Your task to perform on an android device: turn off sleep mode Image 0: 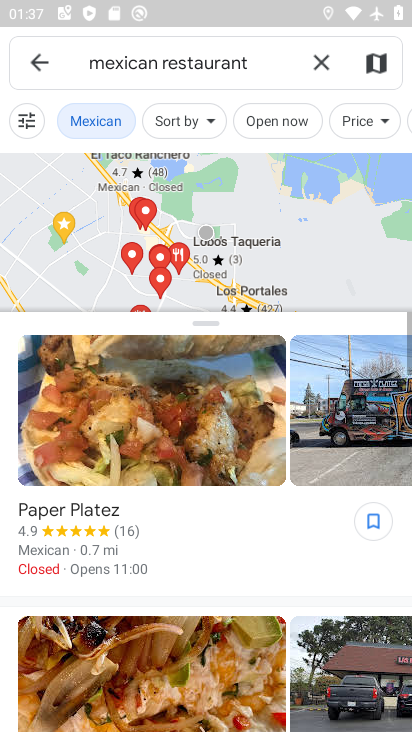
Step 0: drag from (201, 641) to (182, 508)
Your task to perform on an android device: turn off sleep mode Image 1: 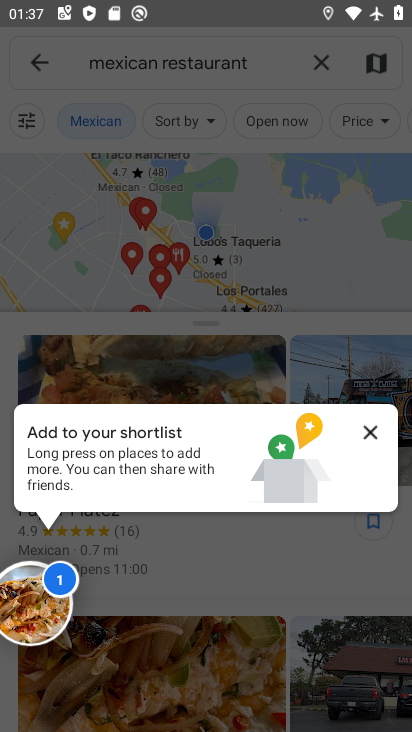
Step 1: press home button
Your task to perform on an android device: turn off sleep mode Image 2: 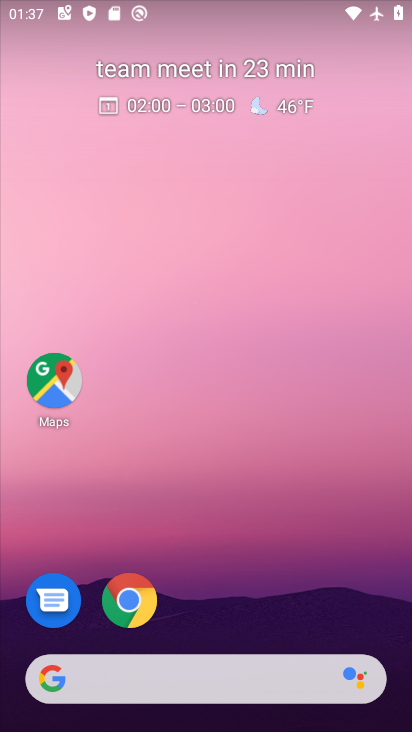
Step 2: drag from (208, 641) to (148, 27)
Your task to perform on an android device: turn off sleep mode Image 3: 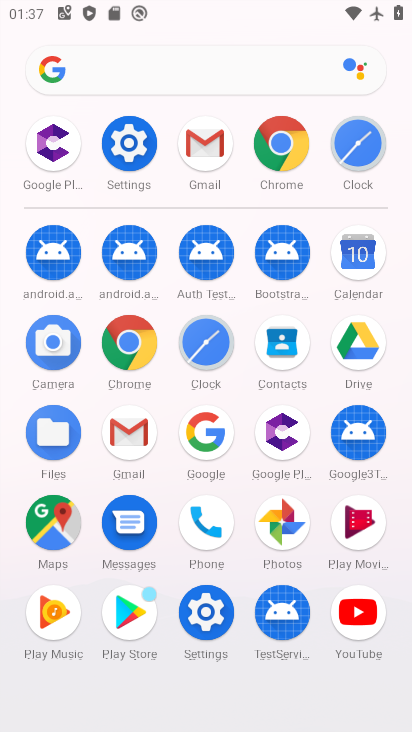
Step 3: click (118, 132)
Your task to perform on an android device: turn off sleep mode Image 4: 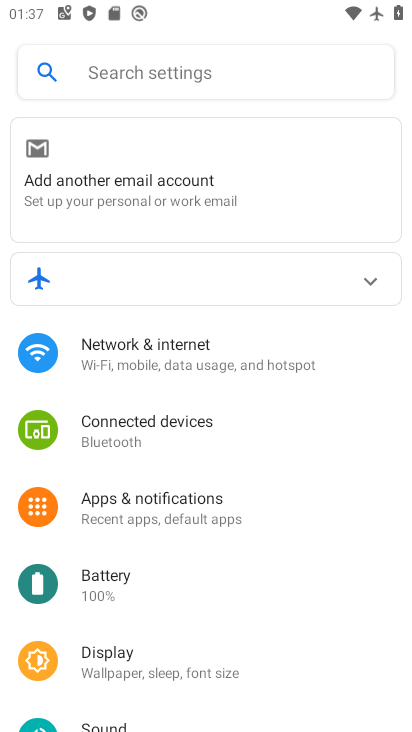
Step 4: drag from (213, 623) to (212, 232)
Your task to perform on an android device: turn off sleep mode Image 5: 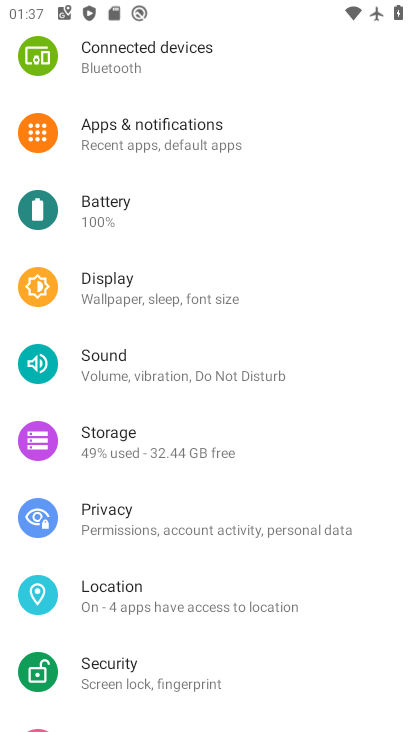
Step 5: click (147, 141)
Your task to perform on an android device: turn off sleep mode Image 6: 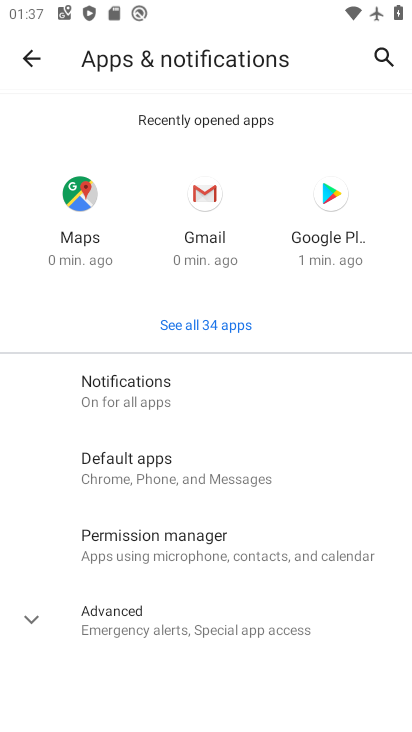
Step 6: click (42, 55)
Your task to perform on an android device: turn off sleep mode Image 7: 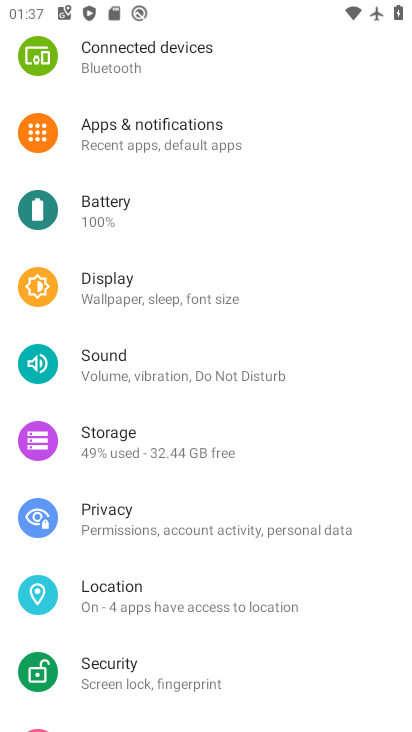
Step 7: click (114, 295)
Your task to perform on an android device: turn off sleep mode Image 8: 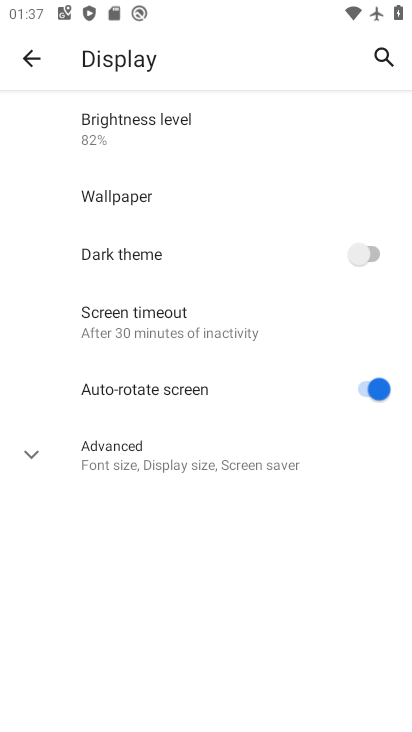
Step 8: click (137, 447)
Your task to perform on an android device: turn off sleep mode Image 9: 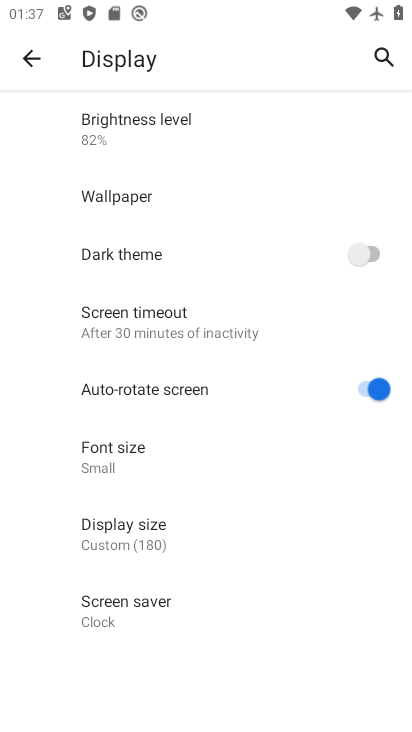
Step 9: task complete